Your task to perform on an android device: turn on the 24-hour format for clock Image 0: 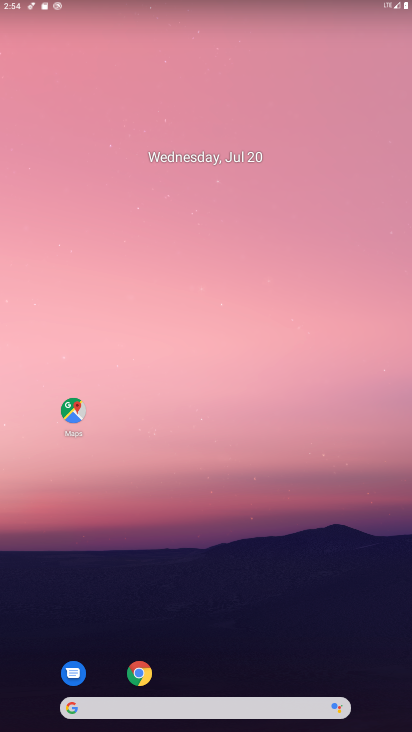
Step 0: drag from (208, 668) to (210, 178)
Your task to perform on an android device: turn on the 24-hour format for clock Image 1: 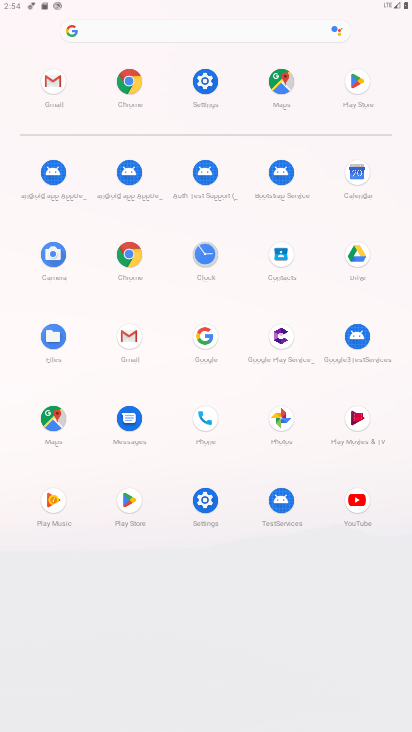
Step 1: click (210, 503)
Your task to perform on an android device: turn on the 24-hour format for clock Image 2: 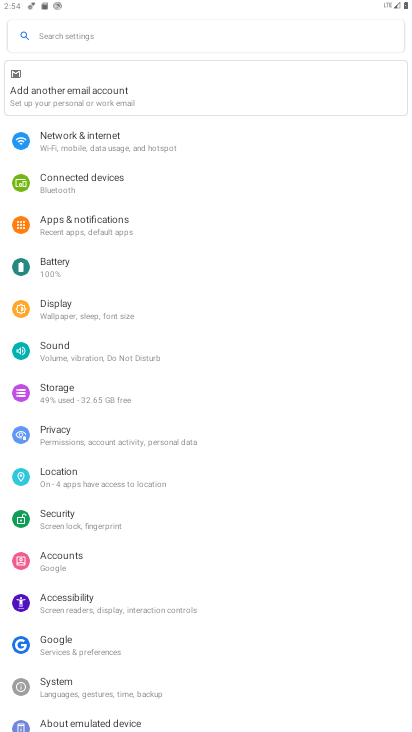
Step 2: drag from (97, 671) to (103, 564)
Your task to perform on an android device: turn on the 24-hour format for clock Image 3: 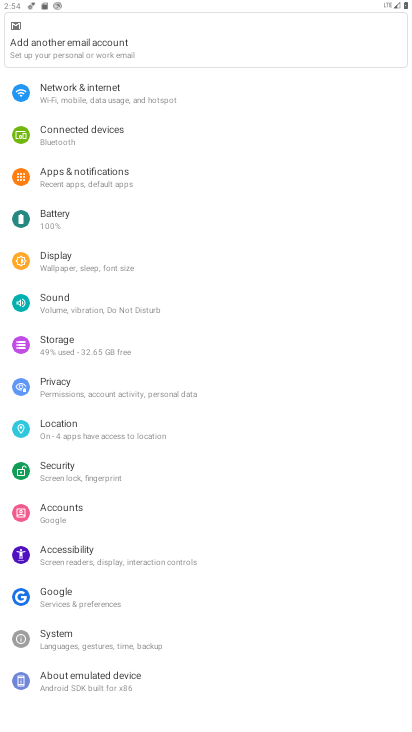
Step 3: click (86, 643)
Your task to perform on an android device: turn on the 24-hour format for clock Image 4: 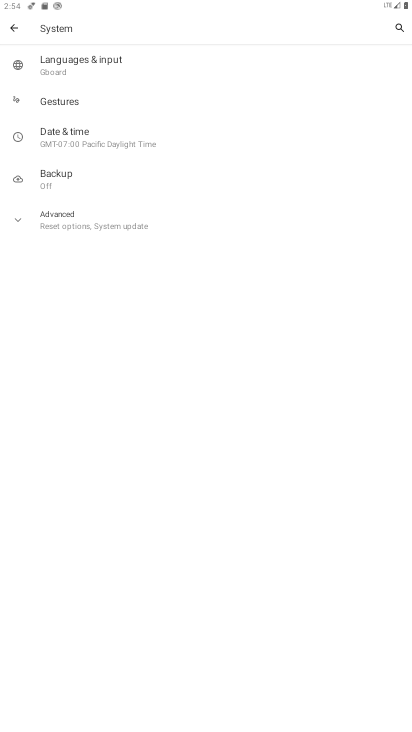
Step 4: click (104, 143)
Your task to perform on an android device: turn on the 24-hour format for clock Image 5: 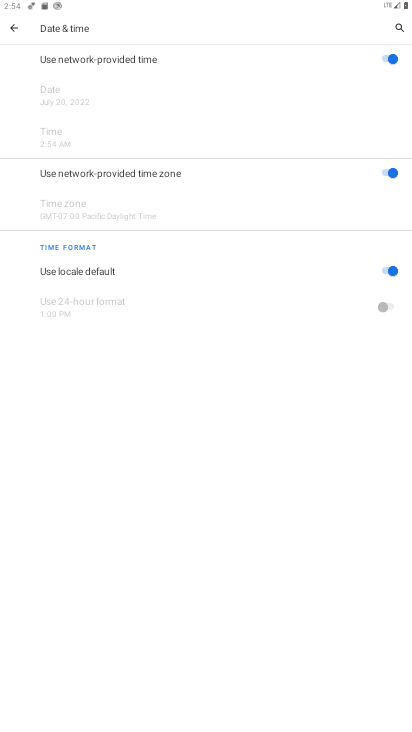
Step 5: click (369, 266)
Your task to perform on an android device: turn on the 24-hour format for clock Image 6: 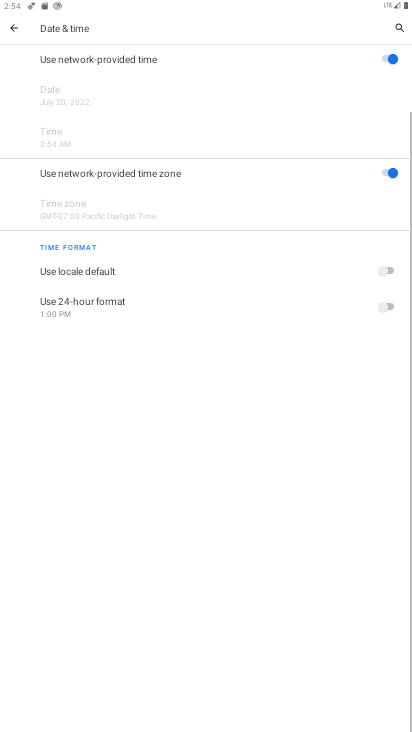
Step 6: click (400, 301)
Your task to perform on an android device: turn on the 24-hour format for clock Image 7: 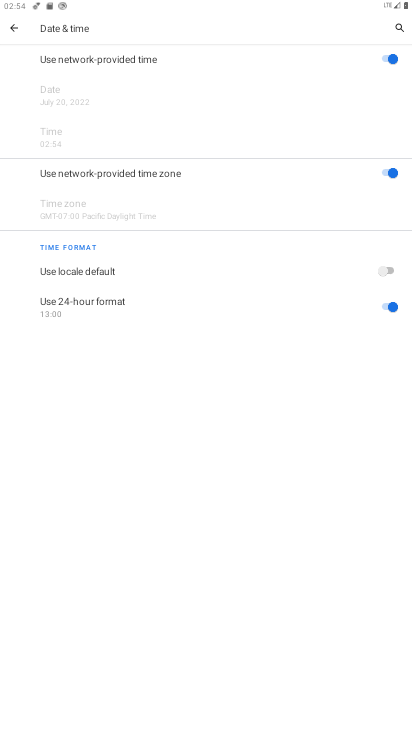
Step 7: task complete